Your task to perform on an android device: Clear the cart on costco.com. Add jbl charge 4 to the cart on costco.com, then select checkout. Image 0: 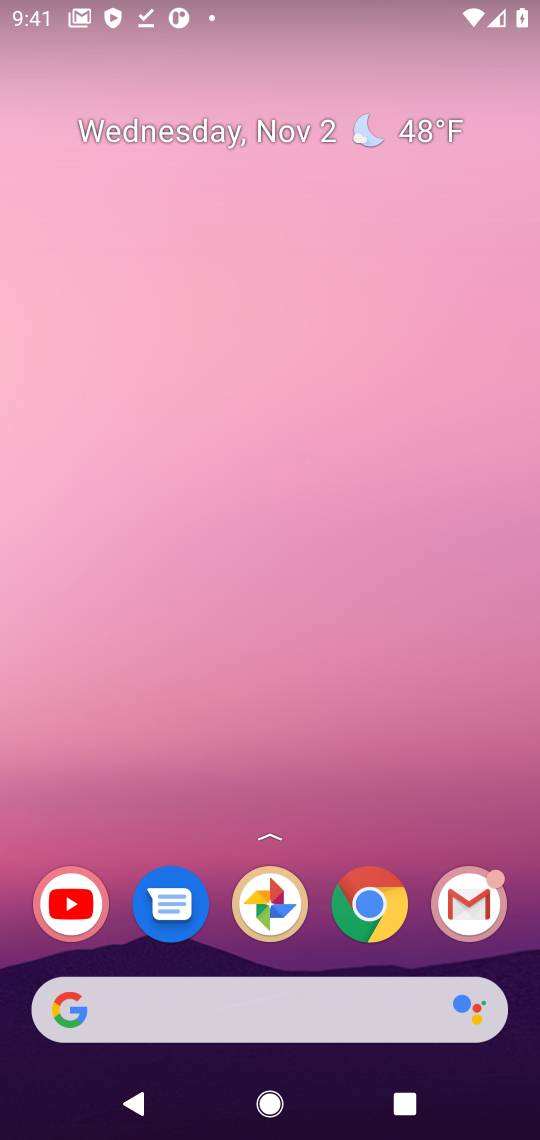
Step 0: click (385, 919)
Your task to perform on an android device: Clear the cart on costco.com. Add jbl charge 4 to the cart on costco.com, then select checkout. Image 1: 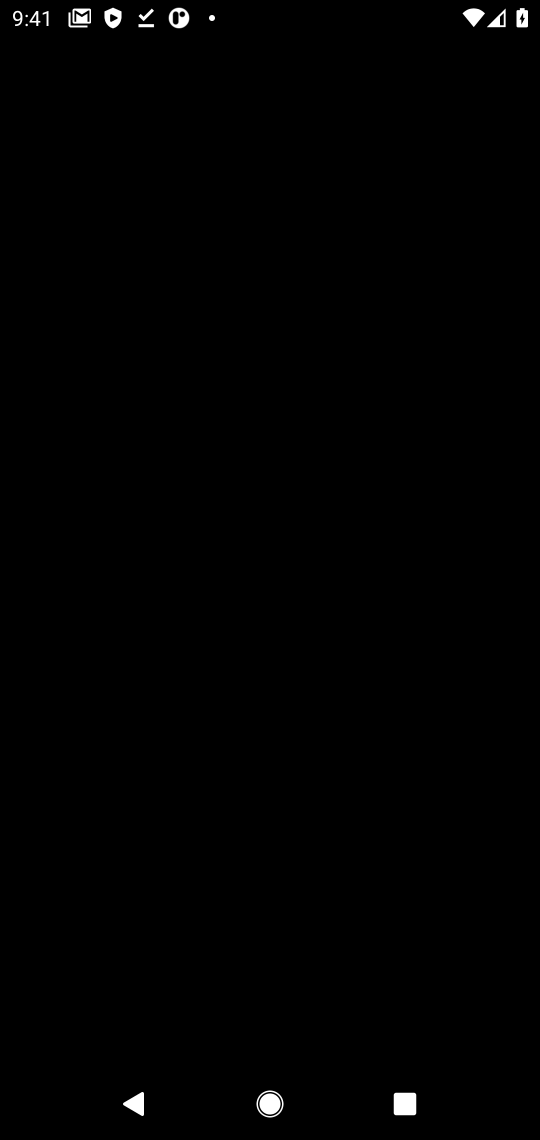
Step 1: press home button
Your task to perform on an android device: Clear the cart on costco.com. Add jbl charge 4 to the cart on costco.com, then select checkout. Image 2: 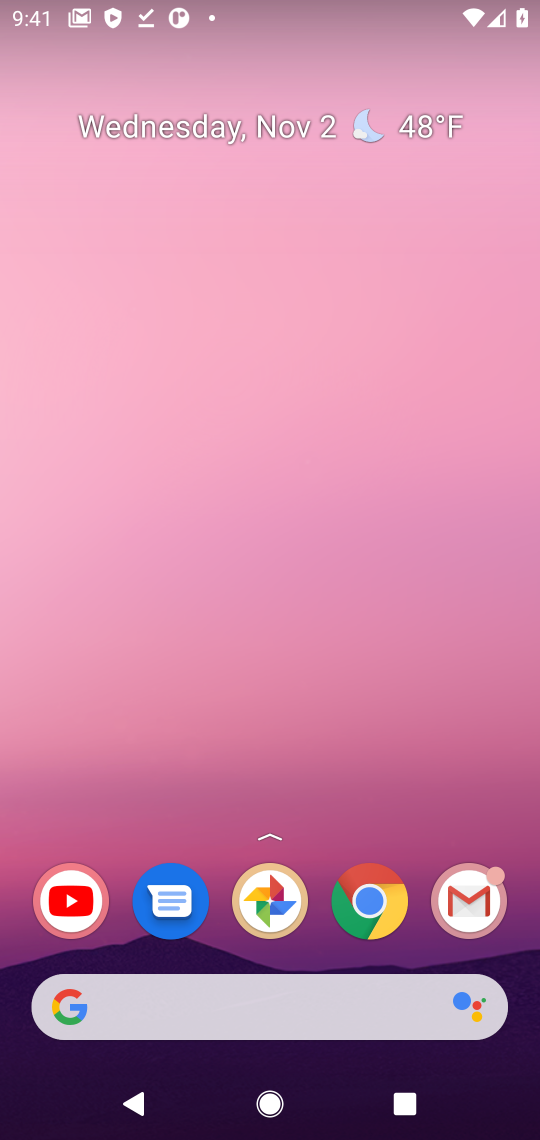
Step 2: click (377, 910)
Your task to perform on an android device: Clear the cart on costco.com. Add jbl charge 4 to the cart on costco.com, then select checkout. Image 3: 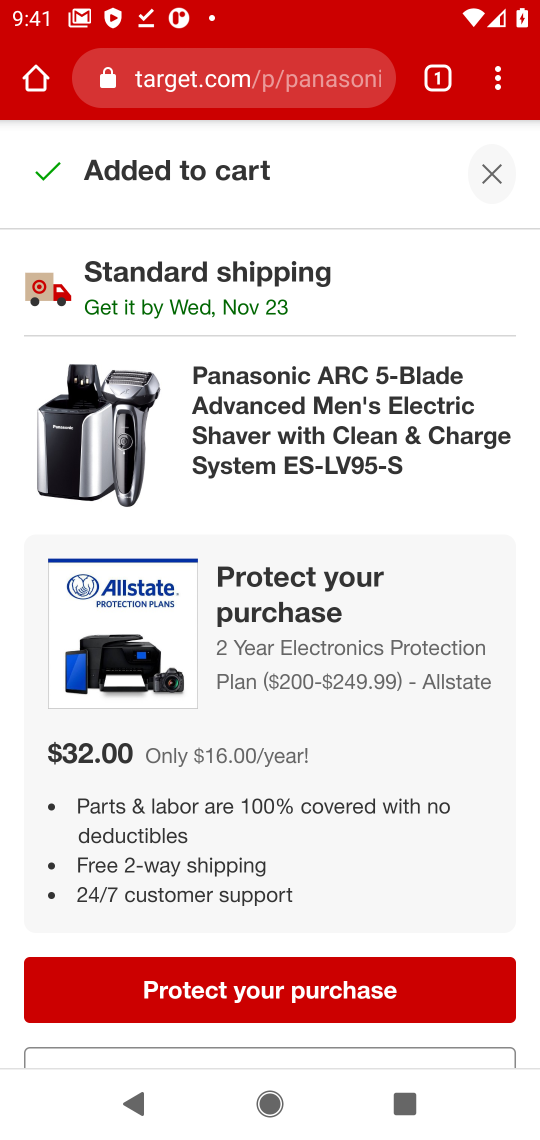
Step 3: click (176, 88)
Your task to perform on an android device: Clear the cart on costco.com. Add jbl charge 4 to the cart on costco.com, then select checkout. Image 4: 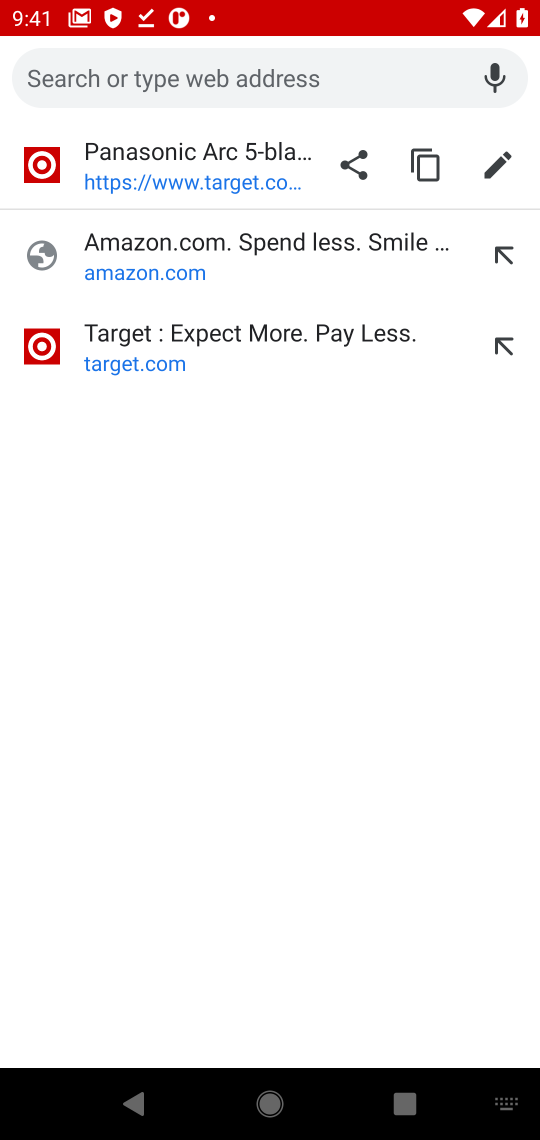
Step 4: type "costco"
Your task to perform on an android device: Clear the cart on costco.com. Add jbl charge 4 to the cart on costco.com, then select checkout. Image 5: 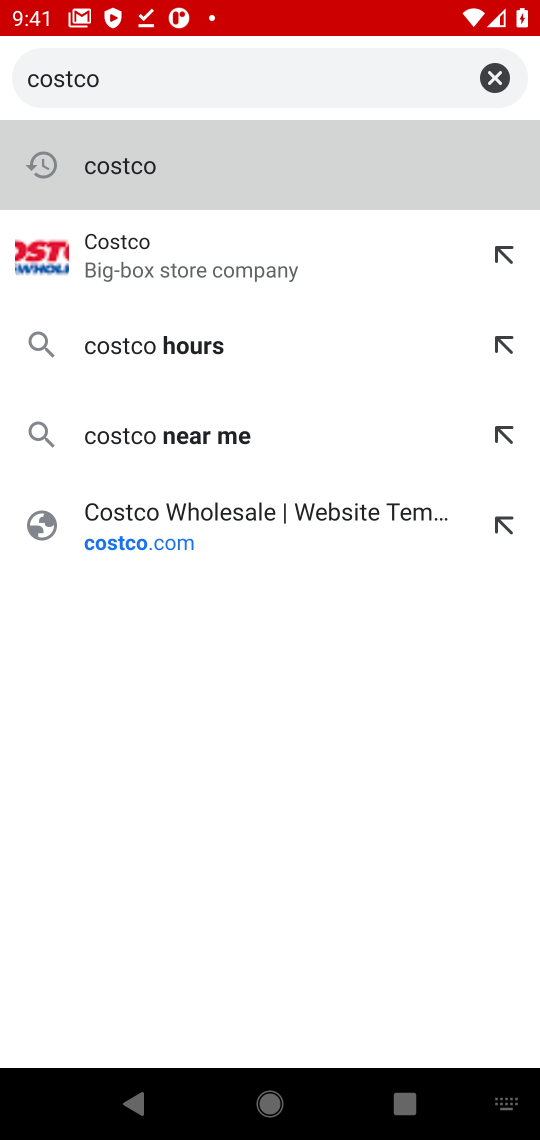
Step 5: click (161, 178)
Your task to perform on an android device: Clear the cart on costco.com. Add jbl charge 4 to the cart on costco.com, then select checkout. Image 6: 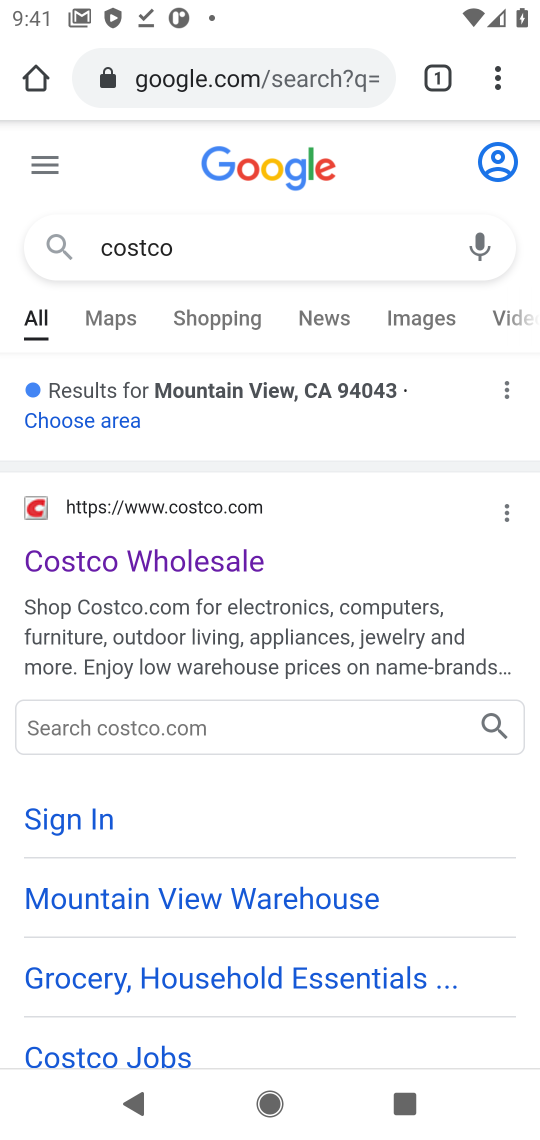
Step 6: click (129, 571)
Your task to perform on an android device: Clear the cart on costco.com. Add jbl charge 4 to the cart on costco.com, then select checkout. Image 7: 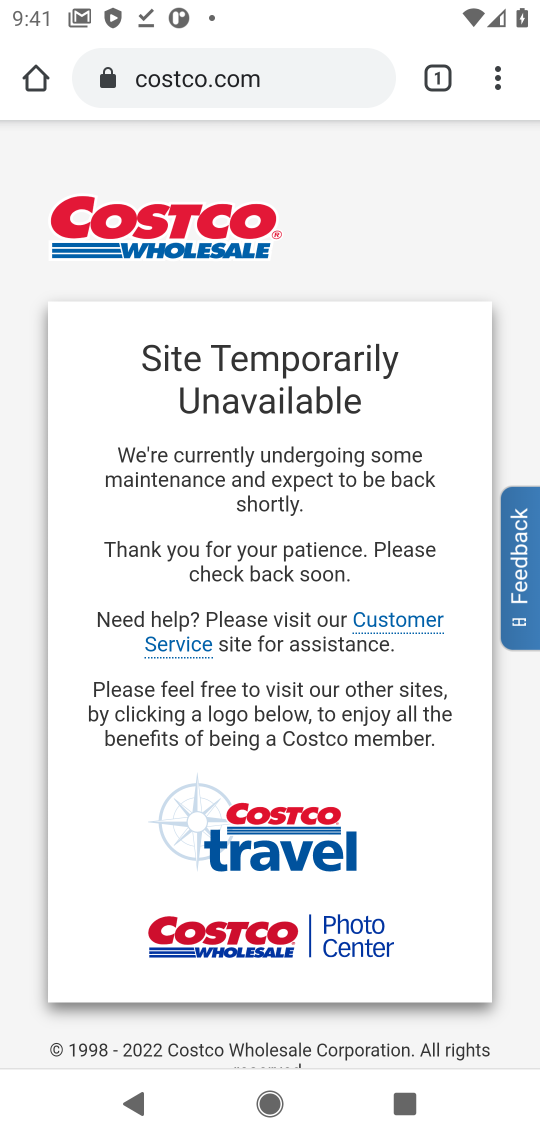
Step 7: task complete